Your task to perform on an android device: Open settings on Google Maps Image 0: 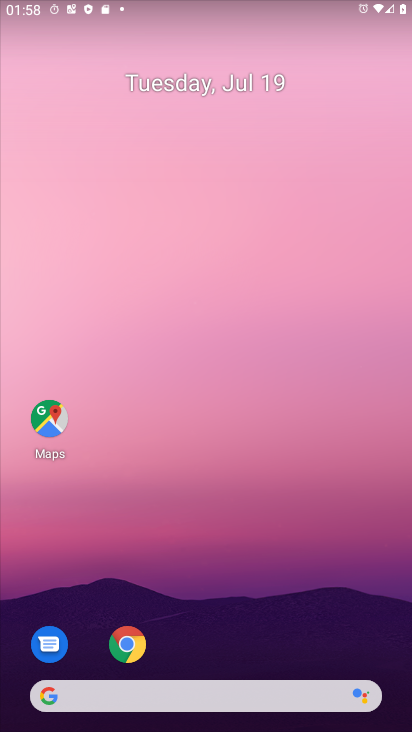
Step 0: drag from (228, 709) to (228, 110)
Your task to perform on an android device: Open settings on Google Maps Image 1: 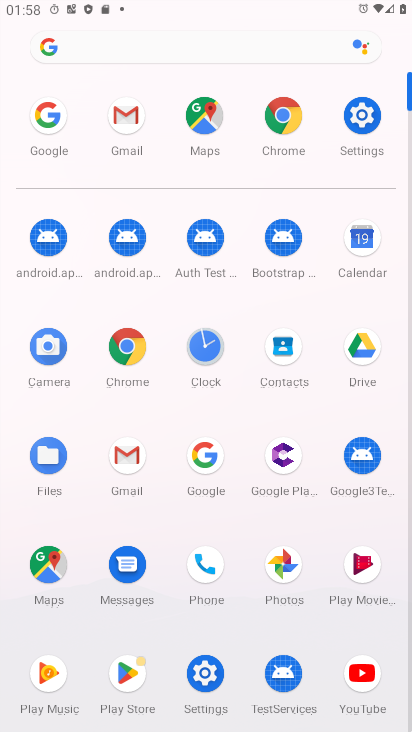
Step 1: click (53, 560)
Your task to perform on an android device: Open settings on Google Maps Image 2: 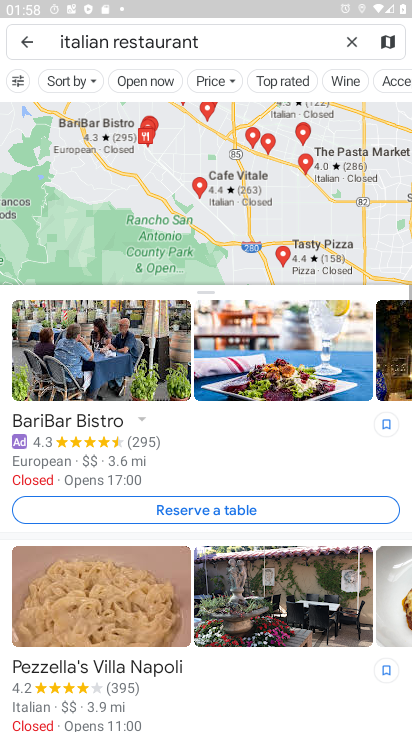
Step 2: task complete